Your task to perform on an android device: What's on my calendar today? Image 0: 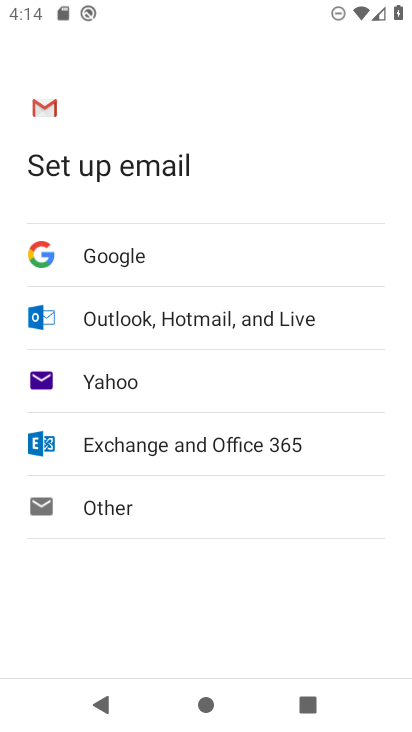
Step 0: press home button
Your task to perform on an android device: What's on my calendar today? Image 1: 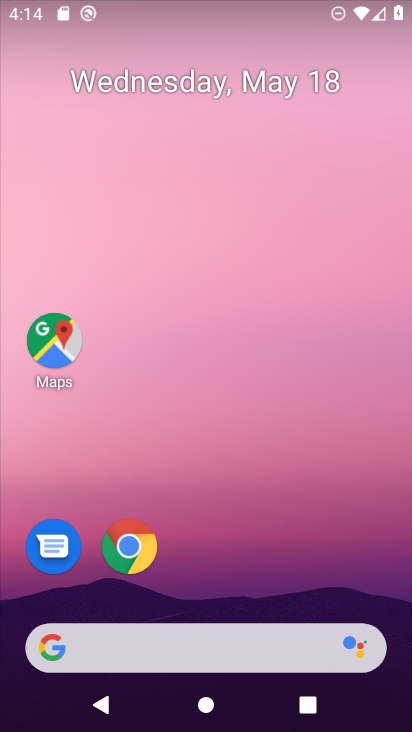
Step 1: drag from (219, 582) to (271, 161)
Your task to perform on an android device: What's on my calendar today? Image 2: 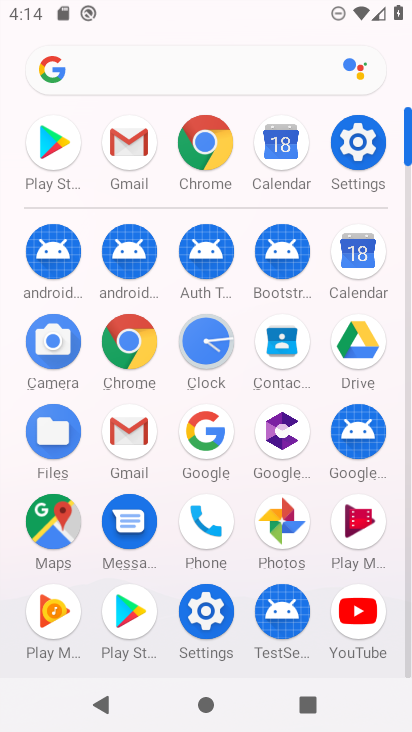
Step 2: click (364, 267)
Your task to perform on an android device: What's on my calendar today? Image 3: 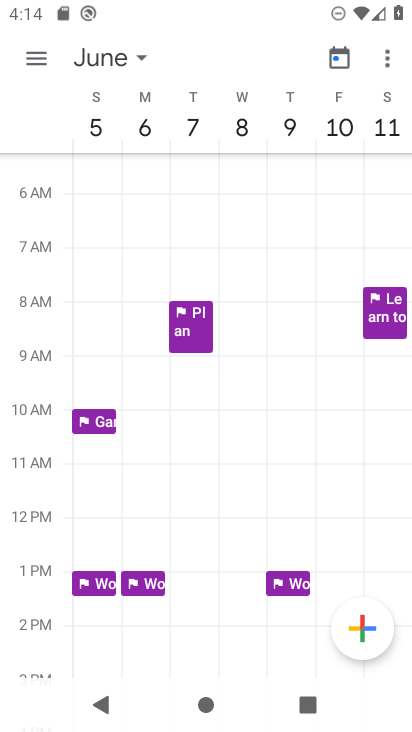
Step 3: drag from (101, 130) to (388, 137)
Your task to perform on an android device: What's on my calendar today? Image 4: 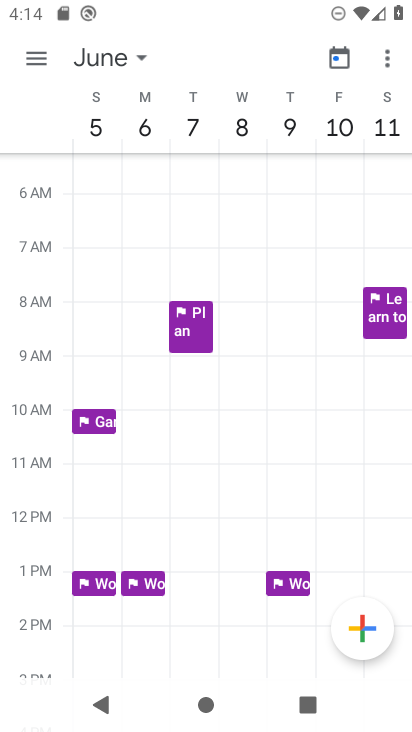
Step 4: drag from (113, 130) to (407, 181)
Your task to perform on an android device: What's on my calendar today? Image 5: 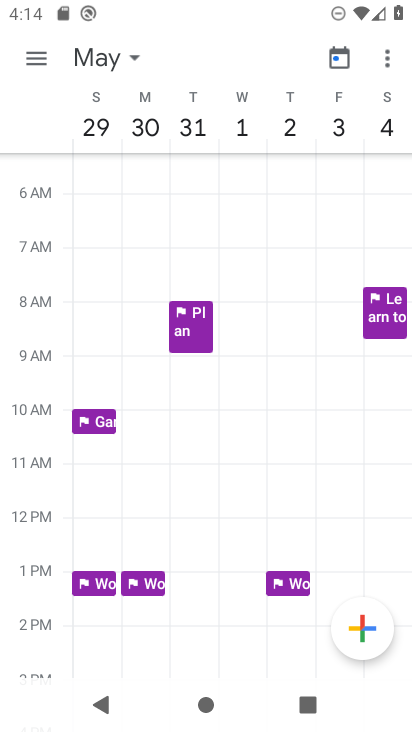
Step 5: drag from (130, 129) to (401, 139)
Your task to perform on an android device: What's on my calendar today? Image 6: 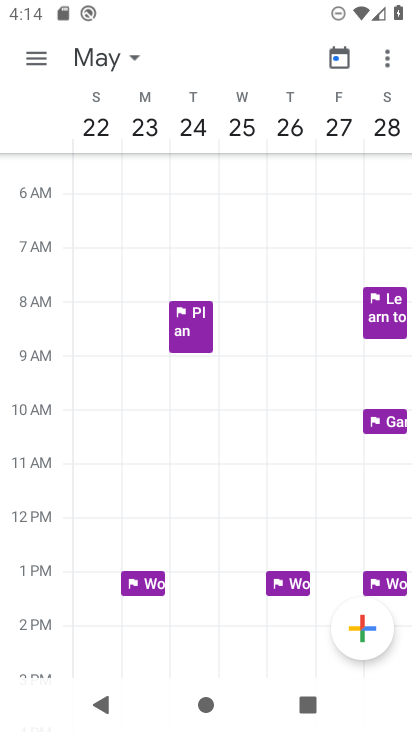
Step 6: drag from (117, 129) to (377, 119)
Your task to perform on an android device: What's on my calendar today? Image 7: 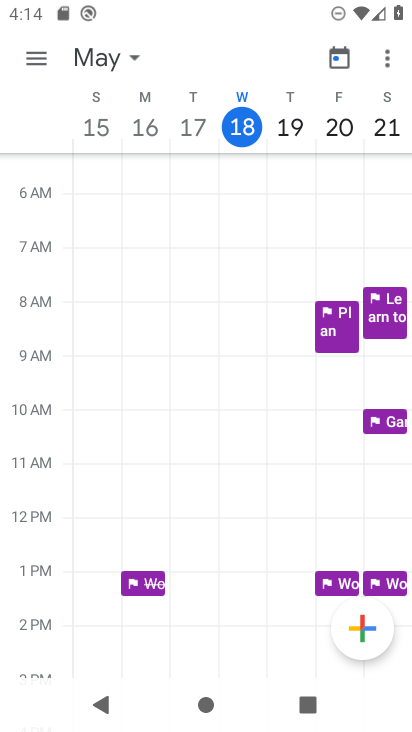
Step 7: click (246, 127)
Your task to perform on an android device: What's on my calendar today? Image 8: 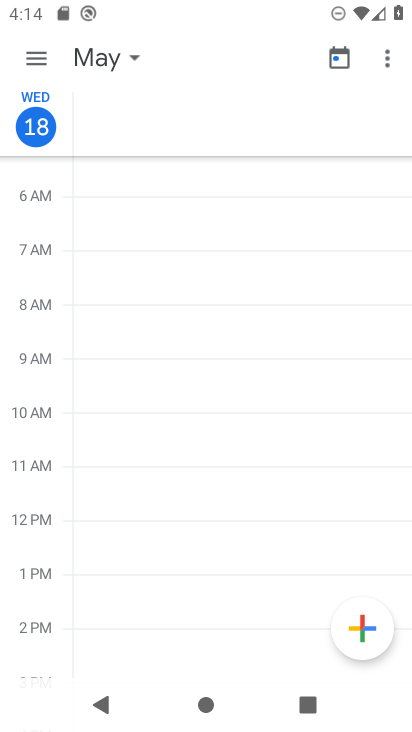
Step 8: click (30, 56)
Your task to perform on an android device: What's on my calendar today? Image 9: 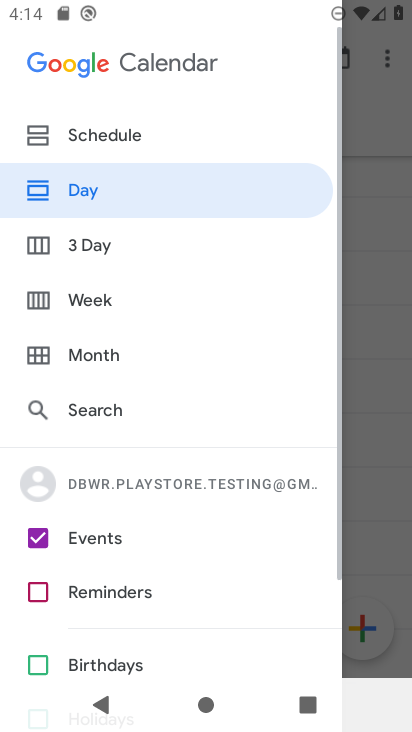
Step 9: click (117, 182)
Your task to perform on an android device: What's on my calendar today? Image 10: 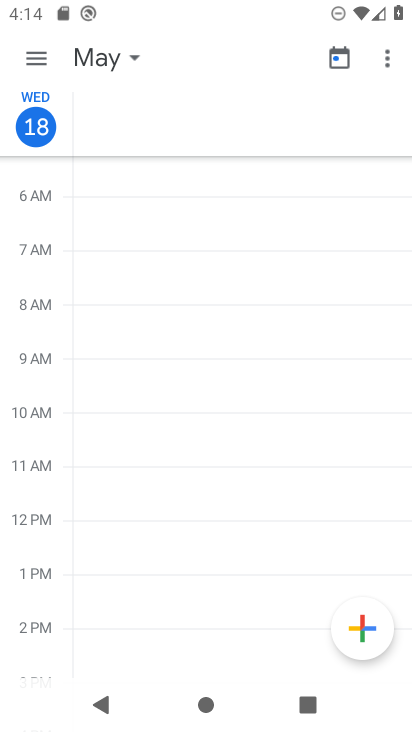
Step 10: task complete